Your task to perform on an android device: add a label to a message in the gmail app Image 0: 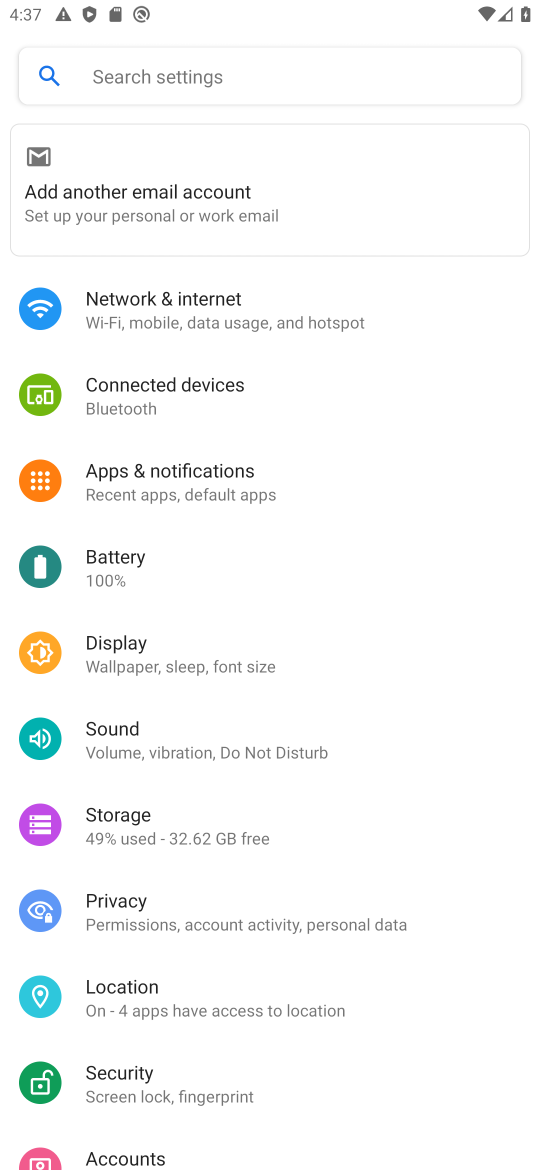
Step 0: press home button
Your task to perform on an android device: add a label to a message in the gmail app Image 1: 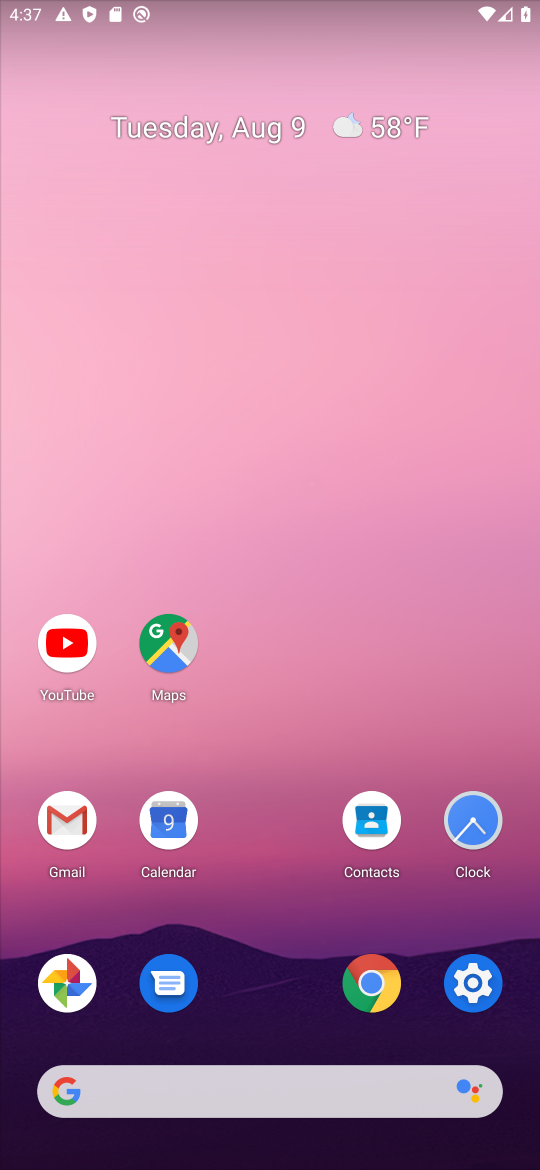
Step 1: click (67, 817)
Your task to perform on an android device: add a label to a message in the gmail app Image 2: 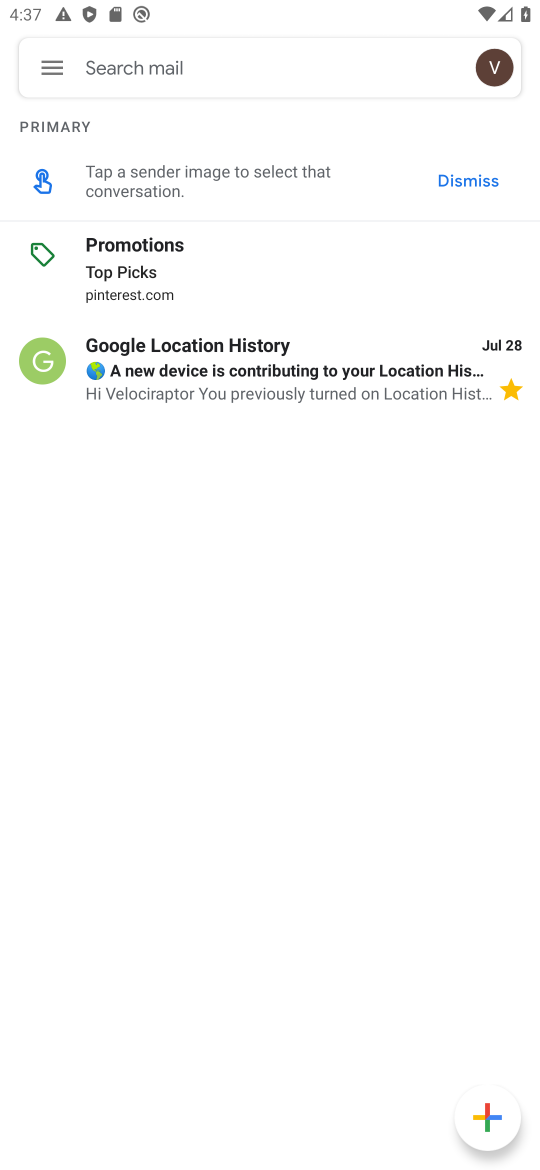
Step 2: click (202, 356)
Your task to perform on an android device: add a label to a message in the gmail app Image 3: 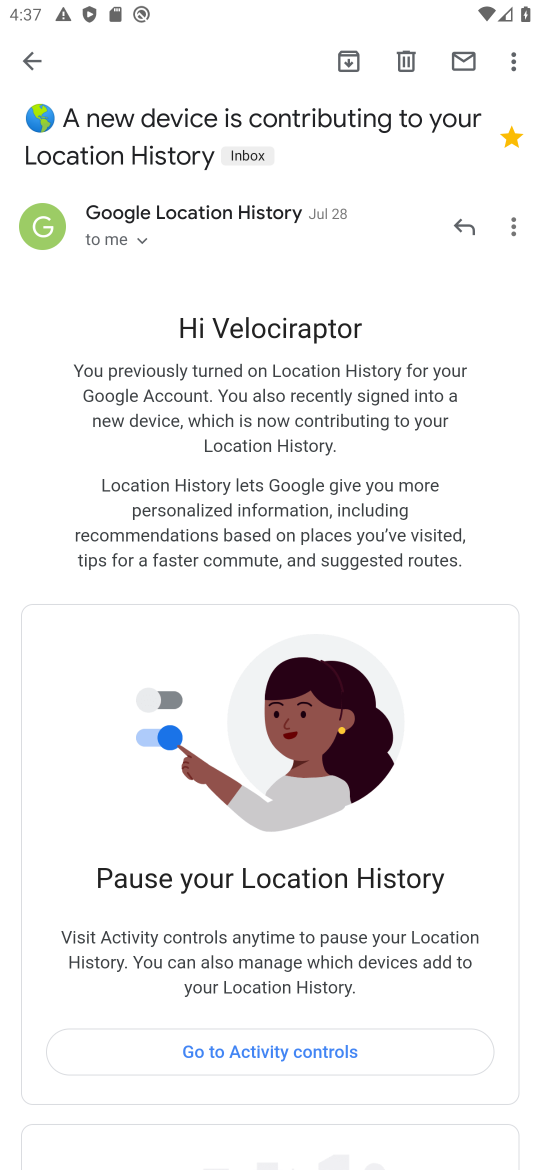
Step 3: click (517, 66)
Your task to perform on an android device: add a label to a message in the gmail app Image 4: 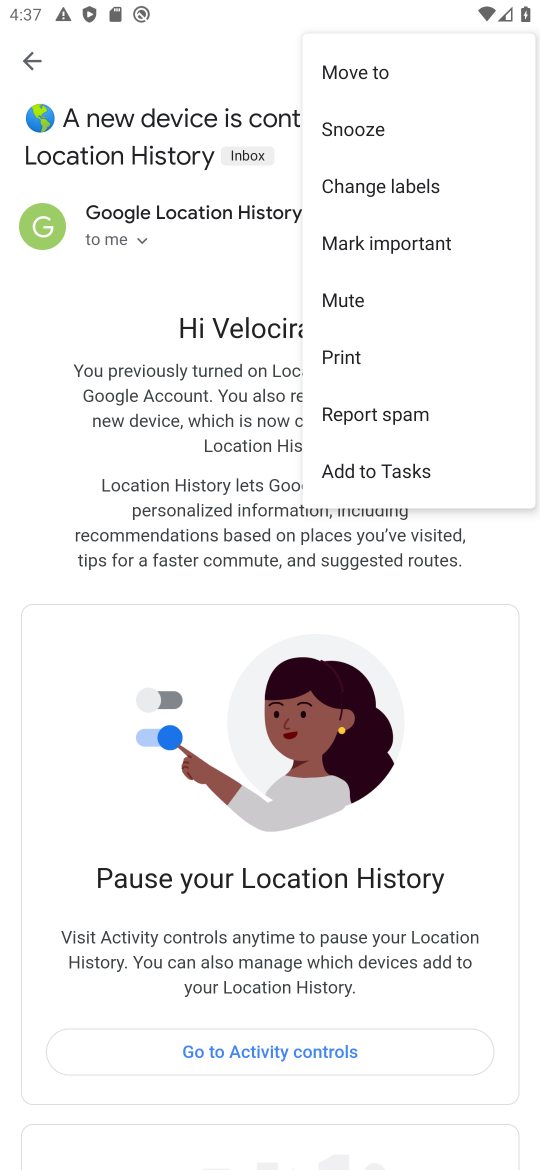
Step 4: click (381, 181)
Your task to perform on an android device: add a label to a message in the gmail app Image 5: 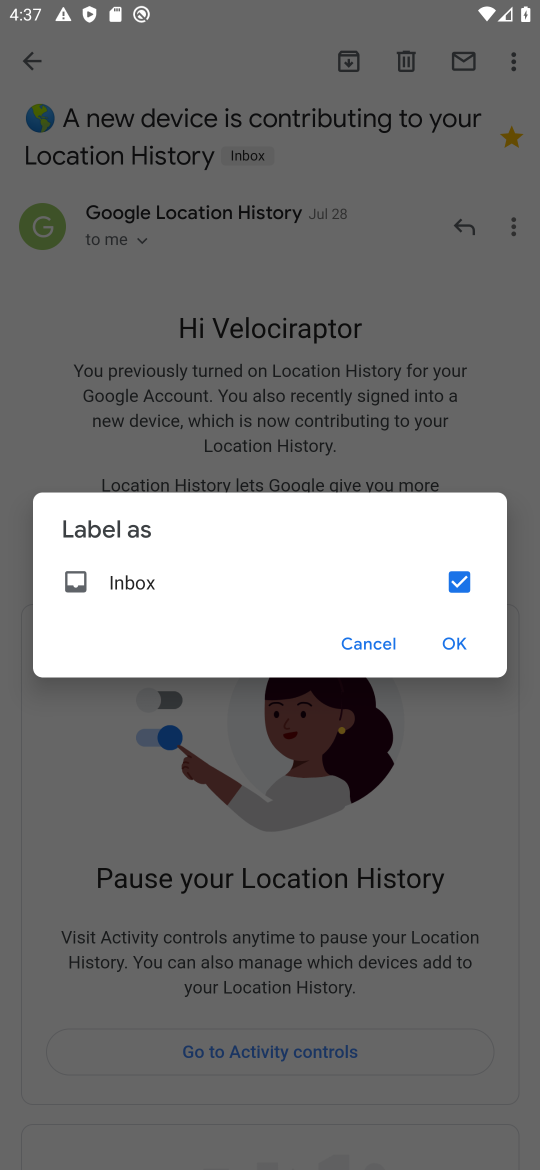
Step 5: click (455, 635)
Your task to perform on an android device: add a label to a message in the gmail app Image 6: 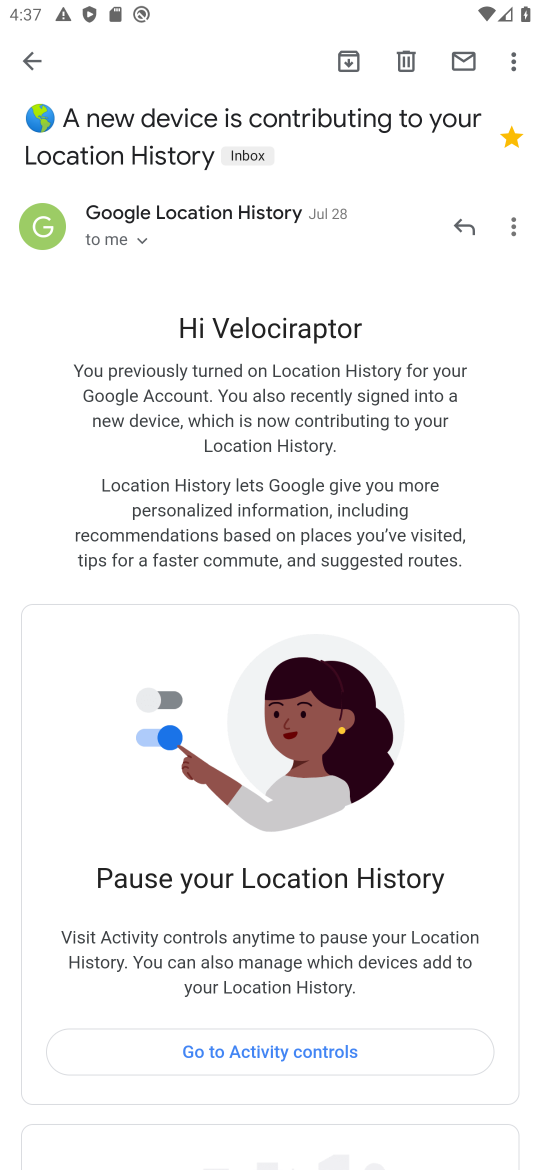
Step 6: task complete